Your task to perform on an android device: toggle improve location accuracy Image 0: 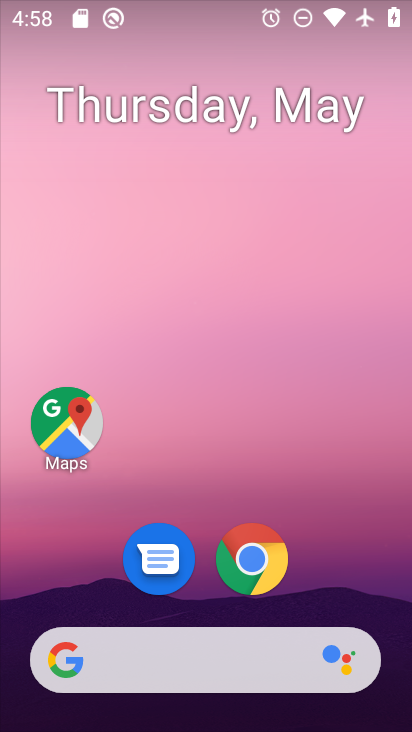
Step 0: drag from (350, 565) to (178, 21)
Your task to perform on an android device: toggle improve location accuracy Image 1: 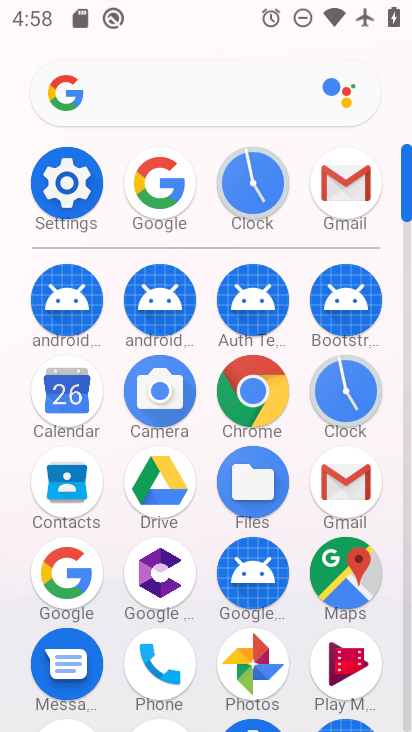
Step 1: click (77, 168)
Your task to perform on an android device: toggle improve location accuracy Image 2: 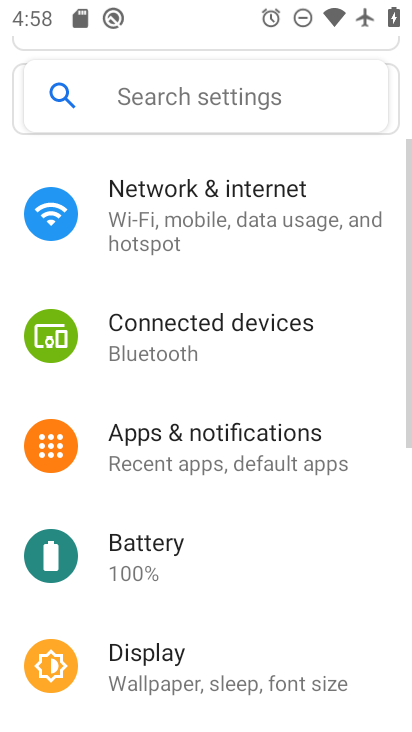
Step 2: drag from (291, 637) to (208, 69)
Your task to perform on an android device: toggle improve location accuracy Image 3: 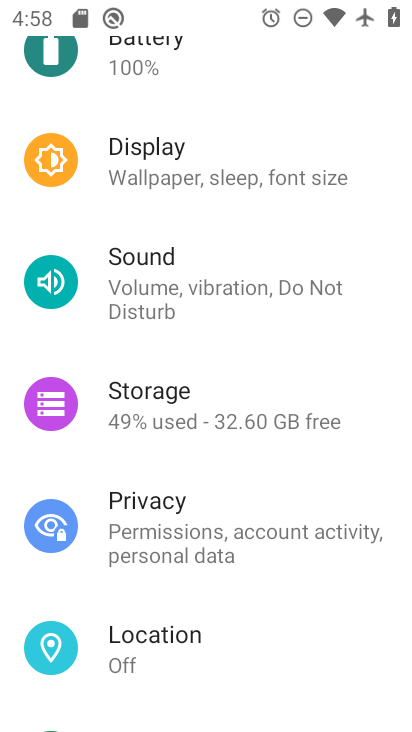
Step 3: click (191, 654)
Your task to perform on an android device: toggle improve location accuracy Image 4: 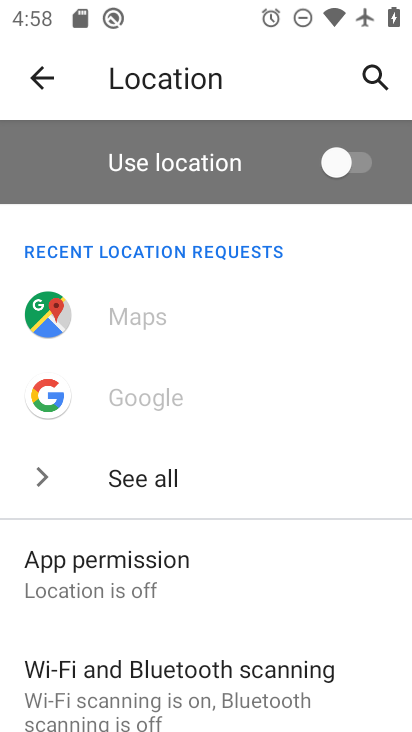
Step 4: drag from (238, 609) to (178, 109)
Your task to perform on an android device: toggle improve location accuracy Image 5: 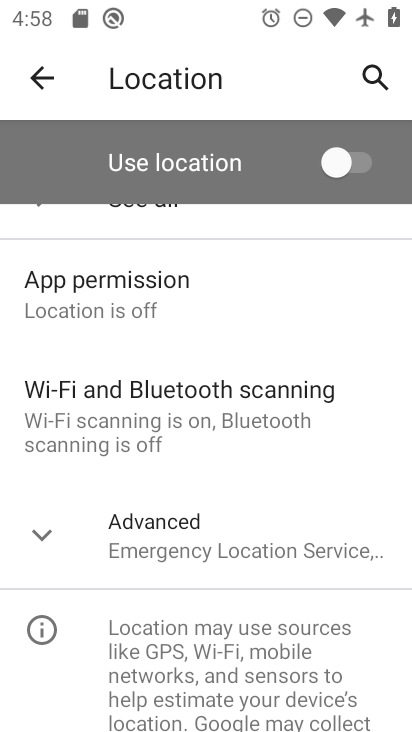
Step 5: click (212, 540)
Your task to perform on an android device: toggle improve location accuracy Image 6: 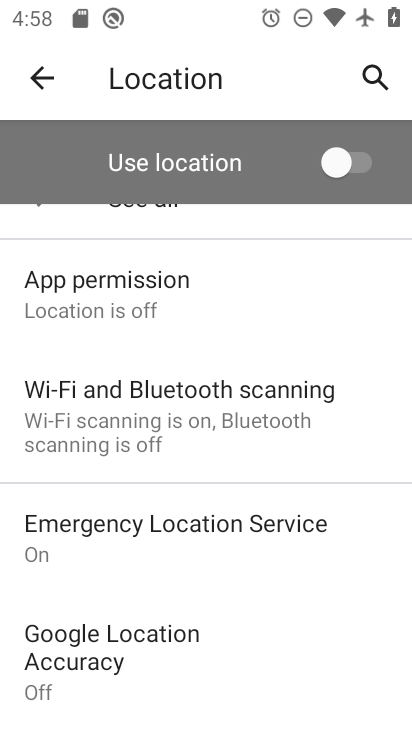
Step 6: click (170, 644)
Your task to perform on an android device: toggle improve location accuracy Image 7: 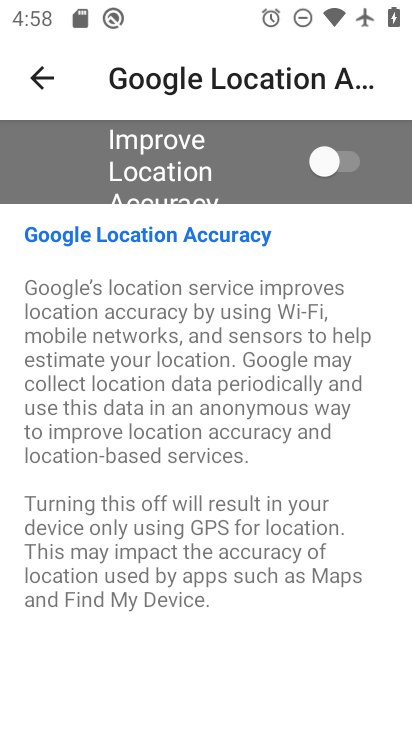
Step 7: click (329, 145)
Your task to perform on an android device: toggle improve location accuracy Image 8: 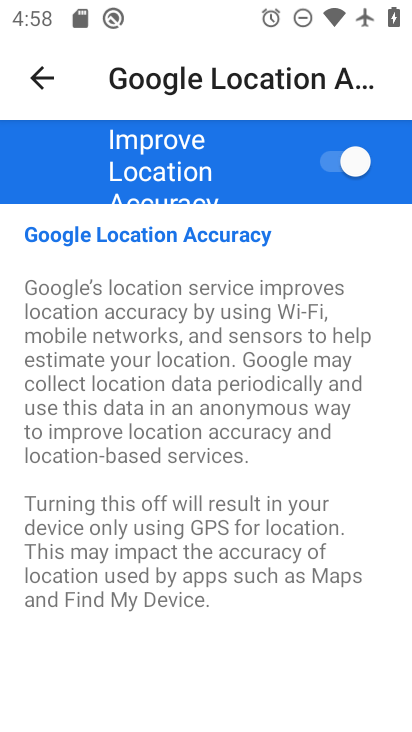
Step 8: task complete